Your task to perform on an android device: Open Google Maps and go to "Timeline" Image 0: 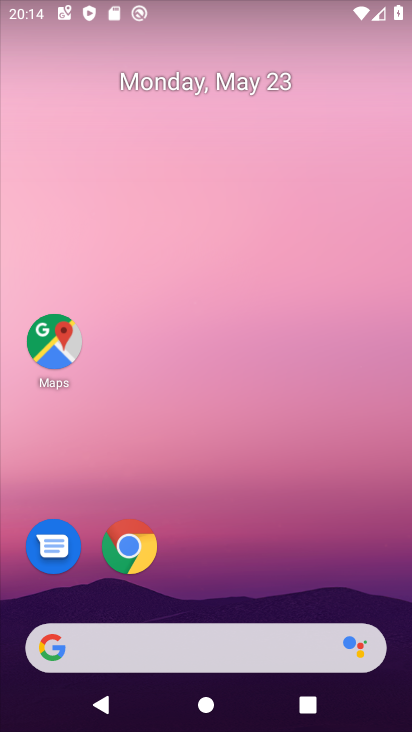
Step 0: drag from (385, 600) to (360, 281)
Your task to perform on an android device: Open Google Maps and go to "Timeline" Image 1: 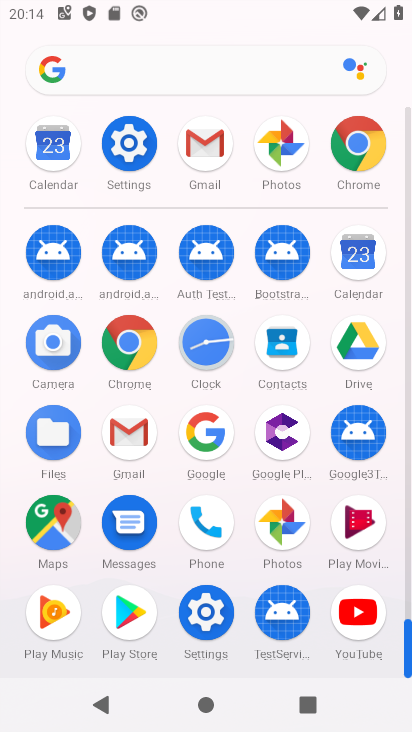
Step 1: click (53, 549)
Your task to perform on an android device: Open Google Maps and go to "Timeline" Image 2: 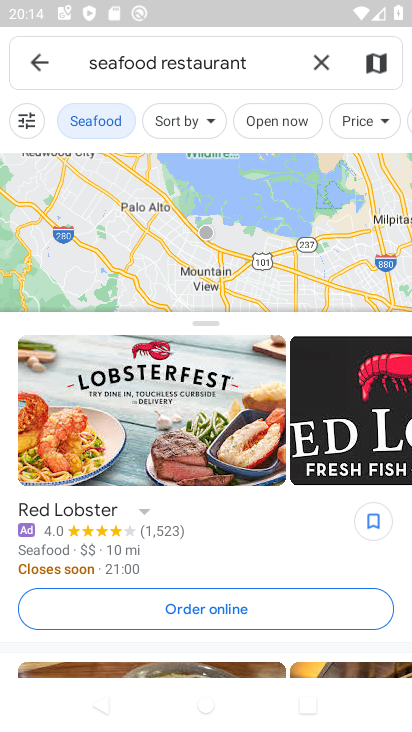
Step 2: click (37, 64)
Your task to perform on an android device: Open Google Maps and go to "Timeline" Image 3: 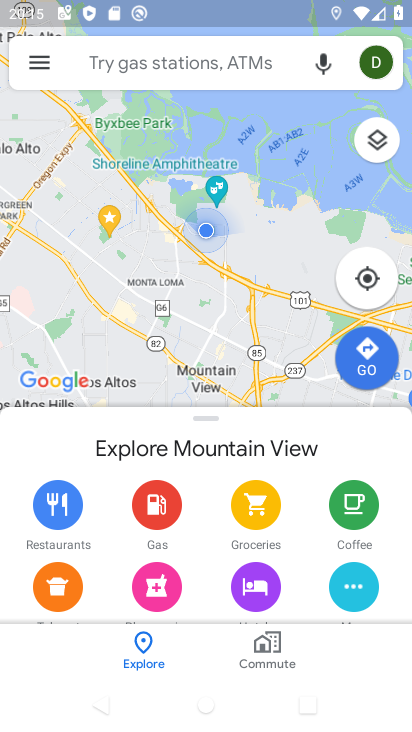
Step 3: click (45, 67)
Your task to perform on an android device: Open Google Maps and go to "Timeline" Image 4: 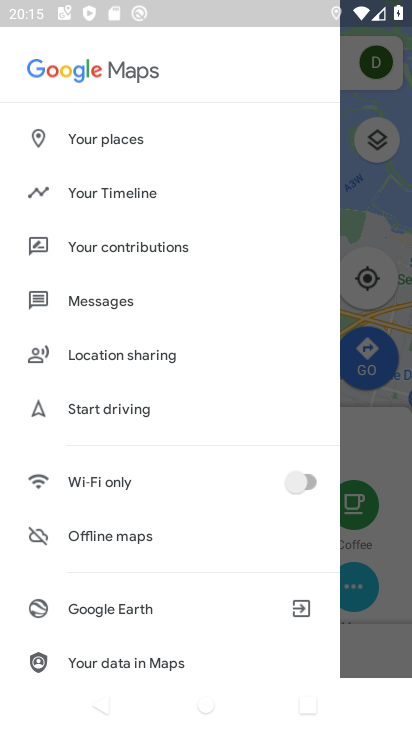
Step 4: click (143, 195)
Your task to perform on an android device: Open Google Maps and go to "Timeline" Image 5: 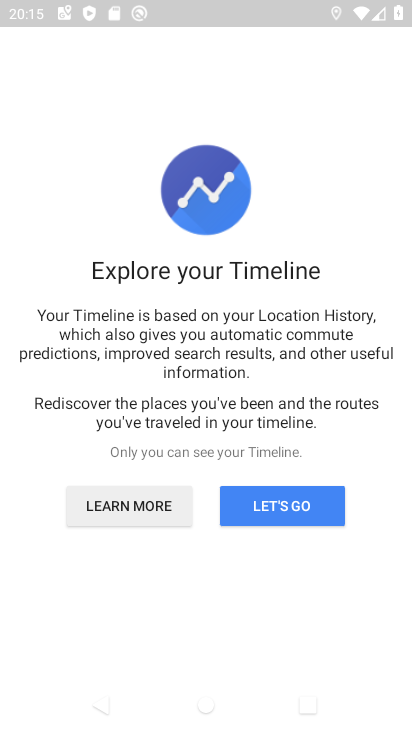
Step 5: task complete